Your task to perform on an android device: How do I get to the nearest Target? Image 0: 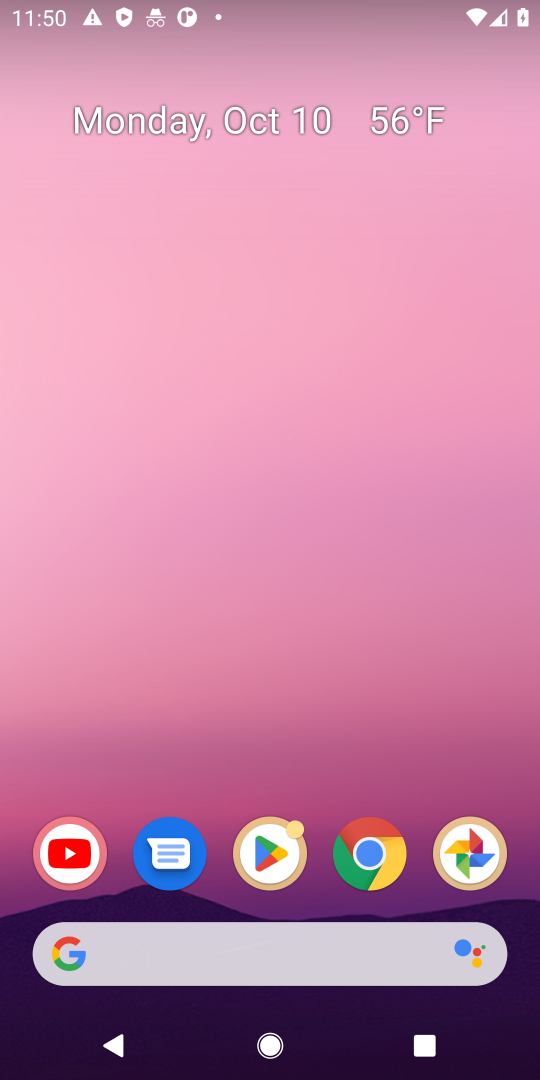
Step 0: drag from (315, 794) to (326, 9)
Your task to perform on an android device: How do I get to the nearest Target? Image 1: 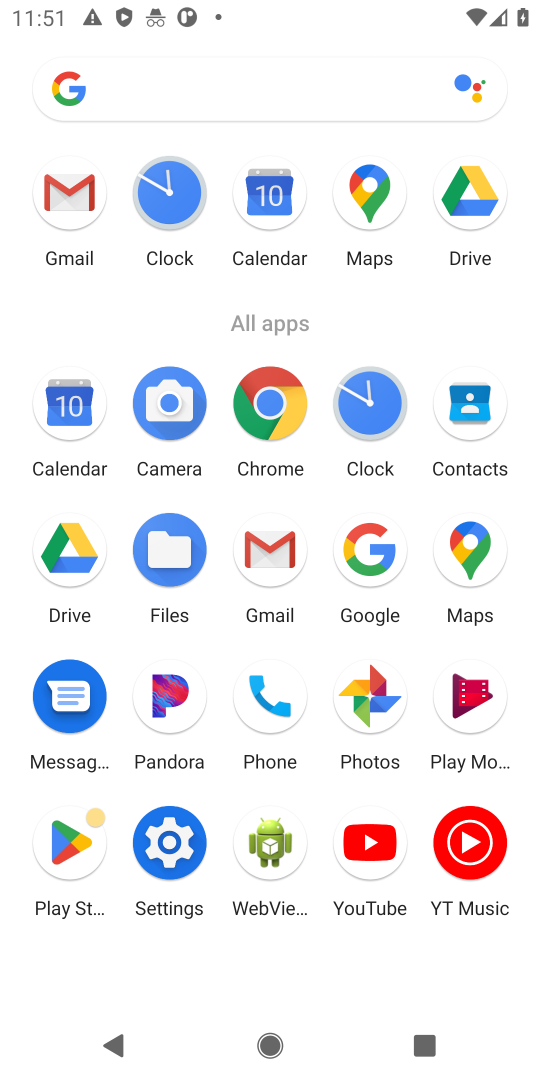
Step 1: click (275, 411)
Your task to perform on an android device: How do I get to the nearest Target? Image 2: 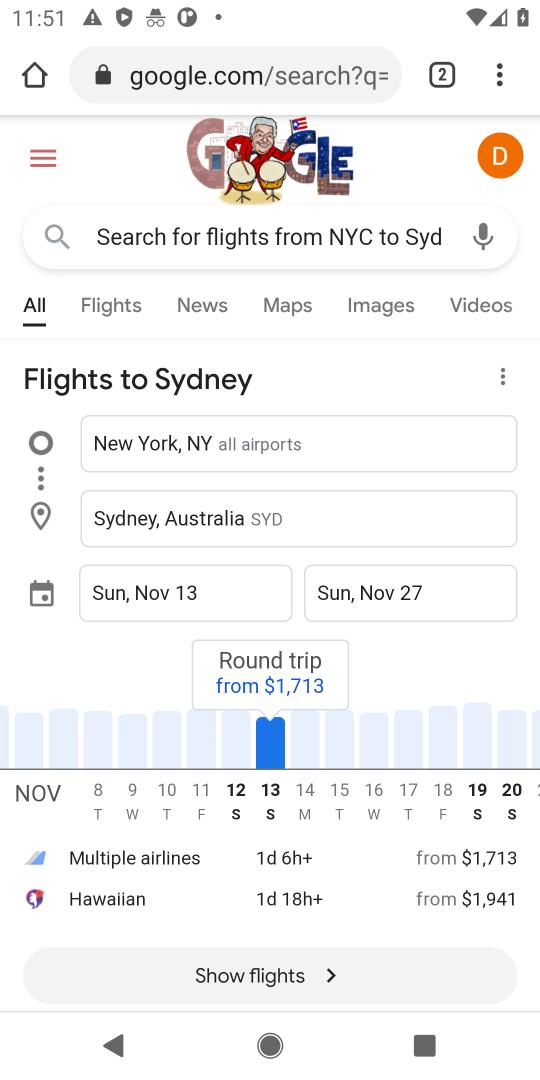
Step 2: click (249, 64)
Your task to perform on an android device: How do I get to the nearest Target? Image 3: 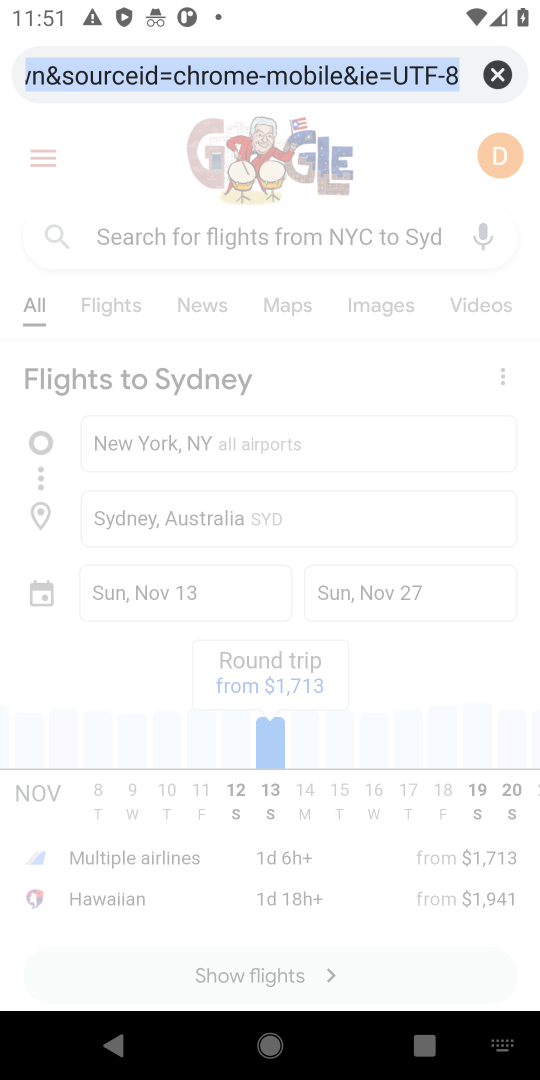
Step 3: click (502, 70)
Your task to perform on an android device: How do I get to the nearest Target? Image 4: 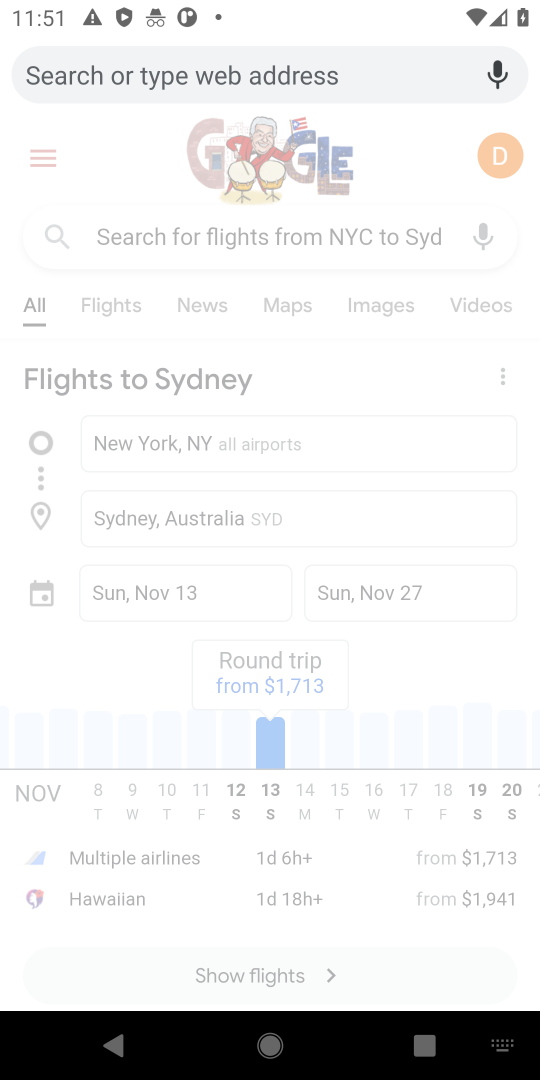
Step 4: type "How do I get to the nearest Target?"
Your task to perform on an android device: How do I get to the nearest Target? Image 5: 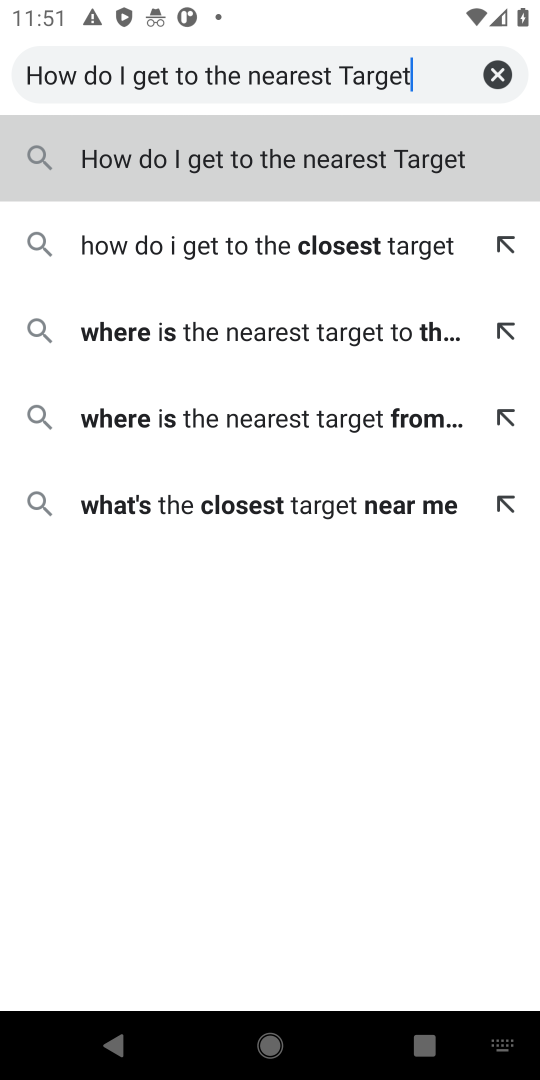
Step 5: click (180, 164)
Your task to perform on an android device: How do I get to the nearest Target? Image 6: 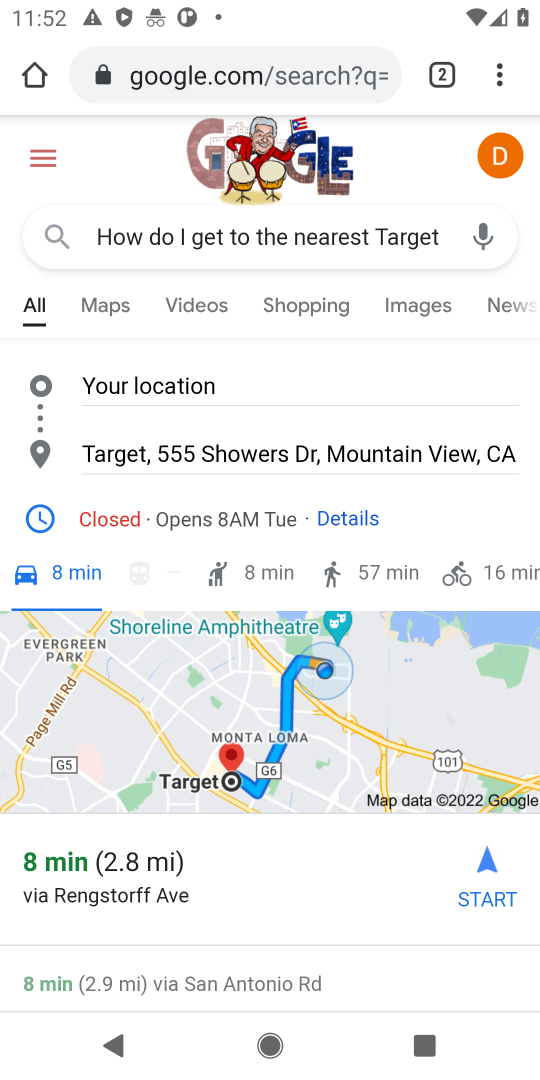
Step 6: task complete